Your task to perform on an android device: change your default location settings in chrome Image 0: 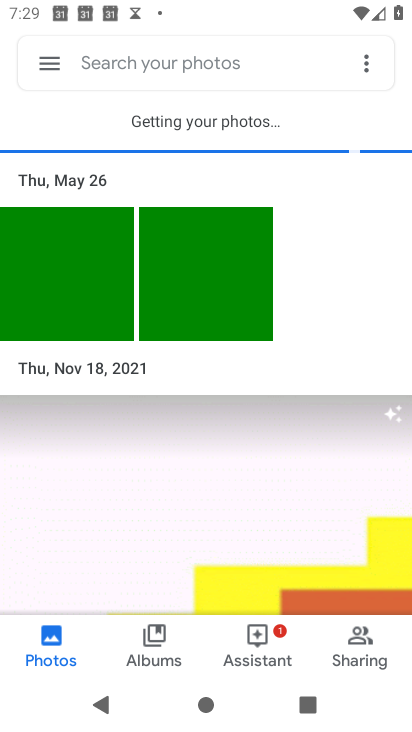
Step 0: press home button
Your task to perform on an android device: change your default location settings in chrome Image 1: 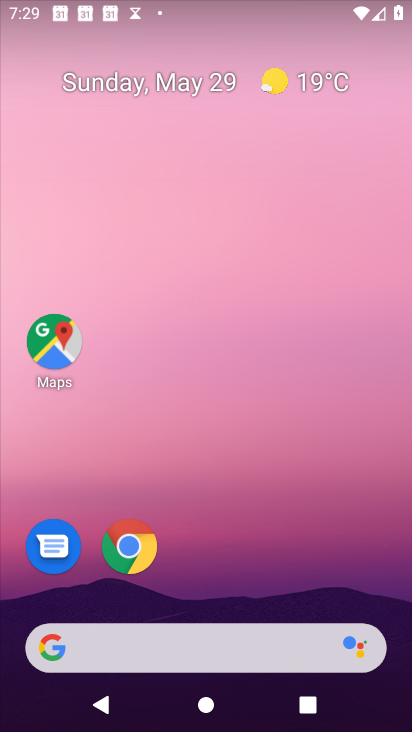
Step 1: click (130, 540)
Your task to perform on an android device: change your default location settings in chrome Image 2: 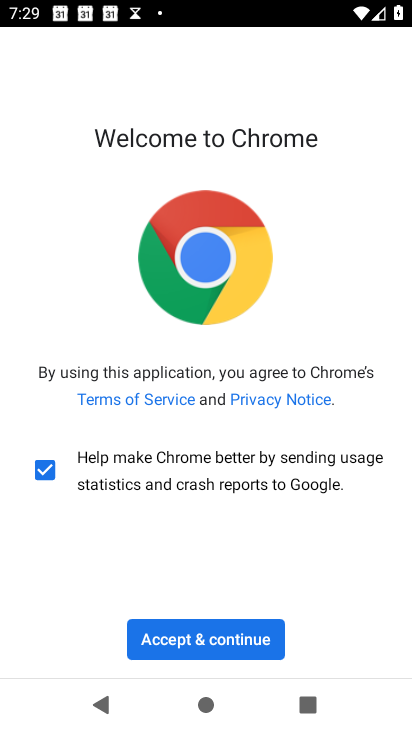
Step 2: click (194, 640)
Your task to perform on an android device: change your default location settings in chrome Image 3: 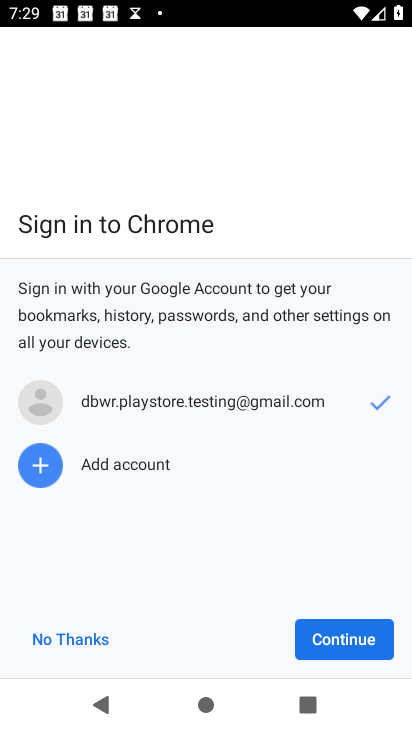
Step 3: click (325, 654)
Your task to perform on an android device: change your default location settings in chrome Image 4: 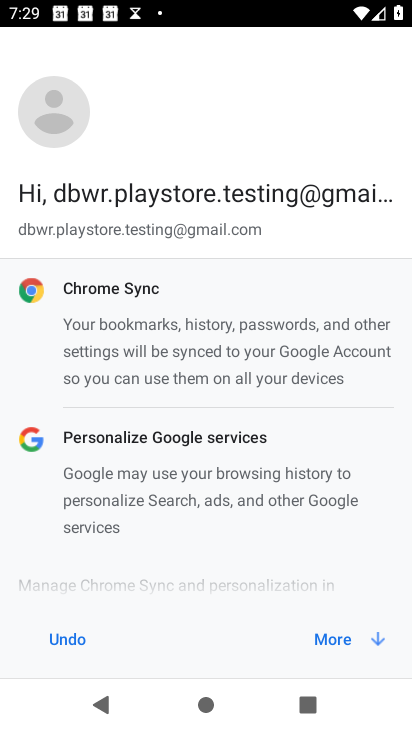
Step 4: click (329, 641)
Your task to perform on an android device: change your default location settings in chrome Image 5: 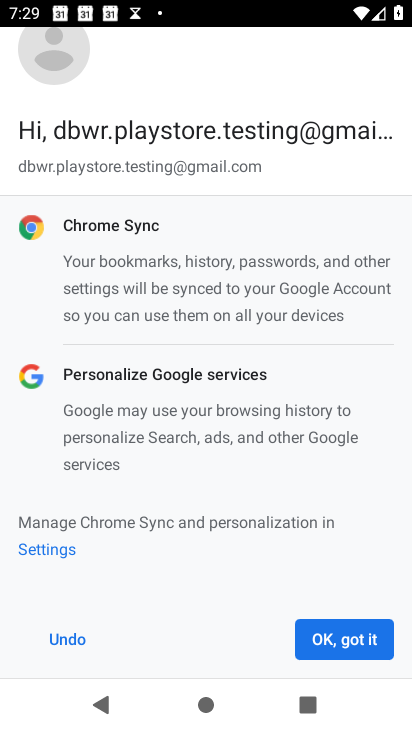
Step 5: click (329, 641)
Your task to perform on an android device: change your default location settings in chrome Image 6: 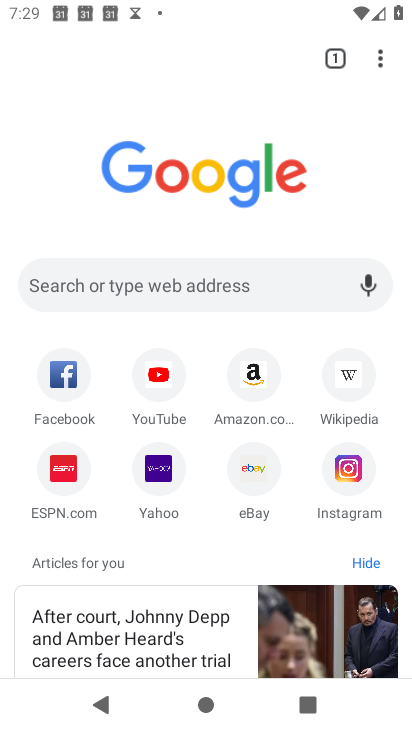
Step 6: click (377, 58)
Your task to perform on an android device: change your default location settings in chrome Image 7: 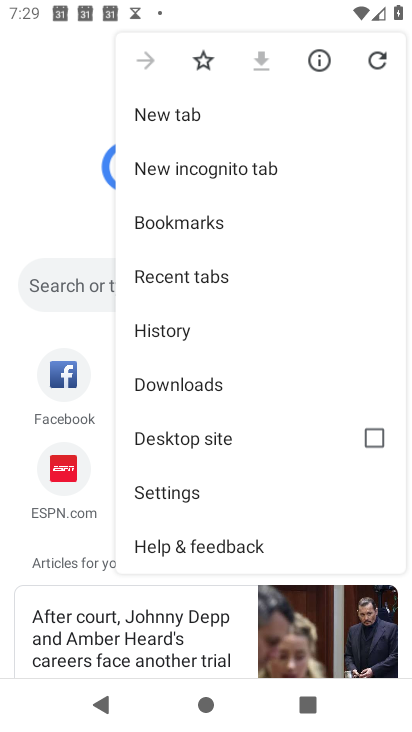
Step 7: click (182, 493)
Your task to perform on an android device: change your default location settings in chrome Image 8: 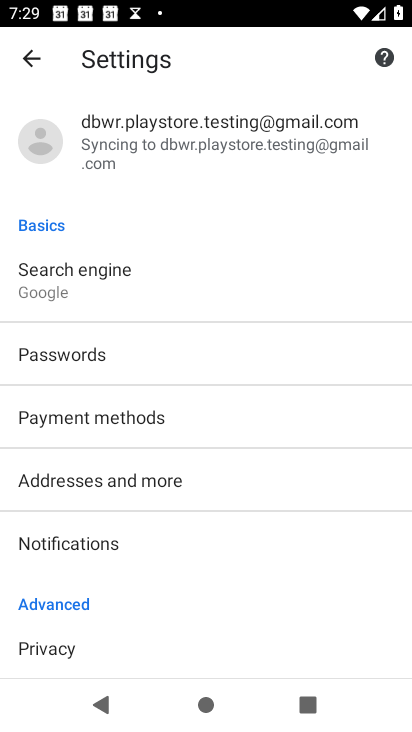
Step 8: click (70, 515)
Your task to perform on an android device: change your default location settings in chrome Image 9: 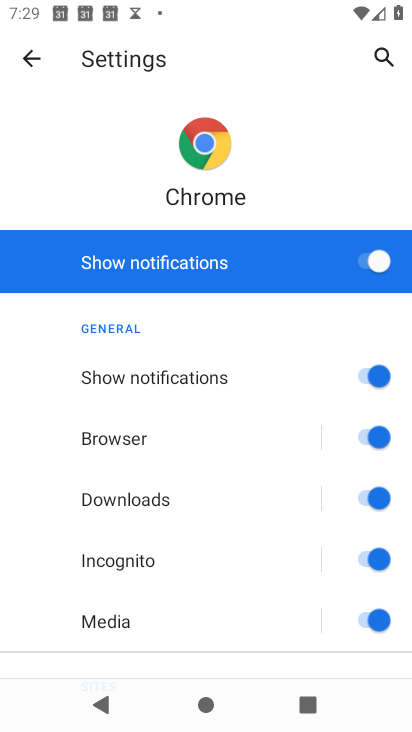
Step 9: click (370, 270)
Your task to perform on an android device: change your default location settings in chrome Image 10: 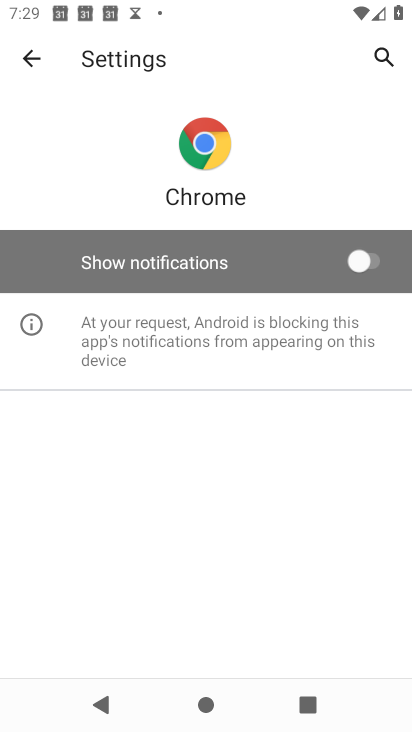
Step 10: task complete